Your task to perform on an android device: change the clock display to analog Image 0: 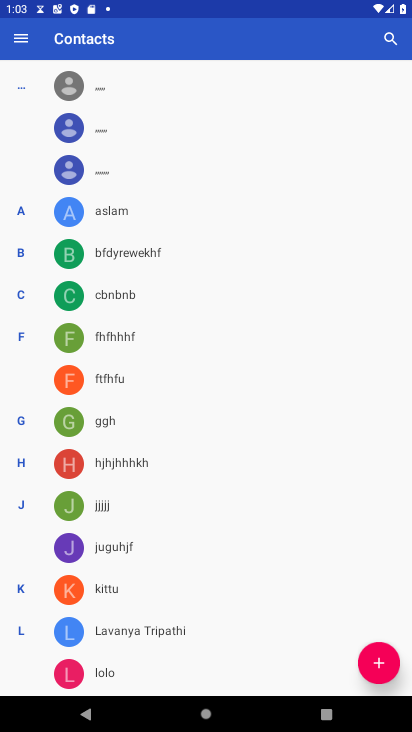
Step 0: press home button
Your task to perform on an android device: change the clock display to analog Image 1: 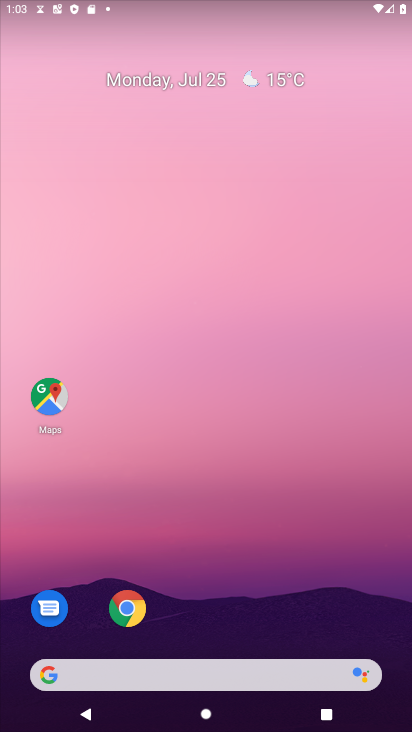
Step 1: drag from (256, 628) to (290, 141)
Your task to perform on an android device: change the clock display to analog Image 2: 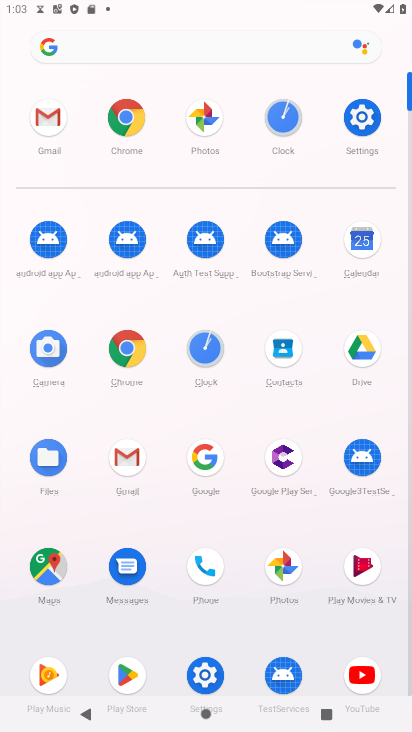
Step 2: click (354, 134)
Your task to perform on an android device: change the clock display to analog Image 3: 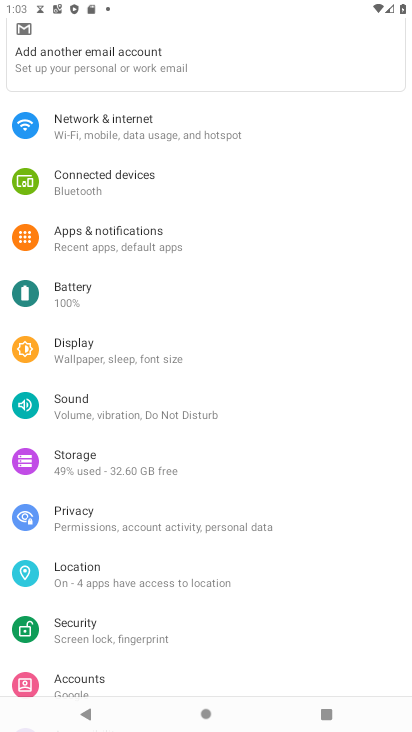
Step 3: press home button
Your task to perform on an android device: change the clock display to analog Image 4: 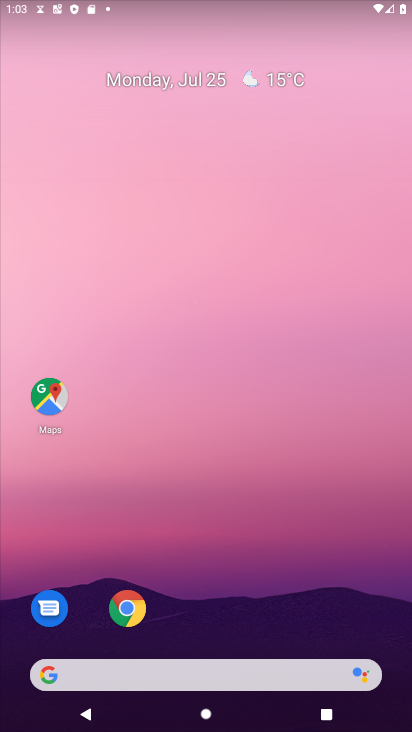
Step 4: click (245, 166)
Your task to perform on an android device: change the clock display to analog Image 5: 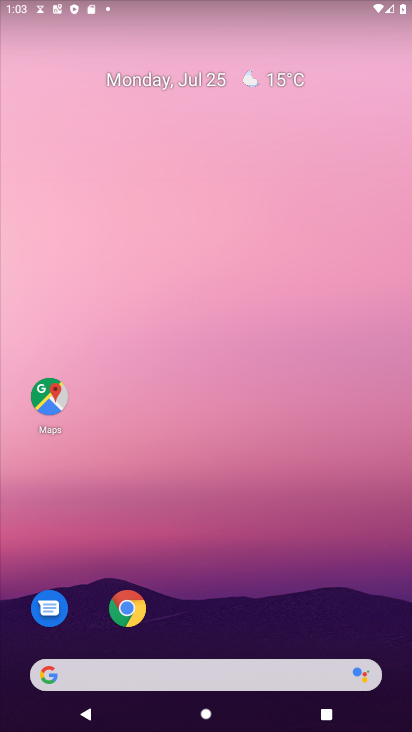
Step 5: drag from (243, 579) to (217, 99)
Your task to perform on an android device: change the clock display to analog Image 6: 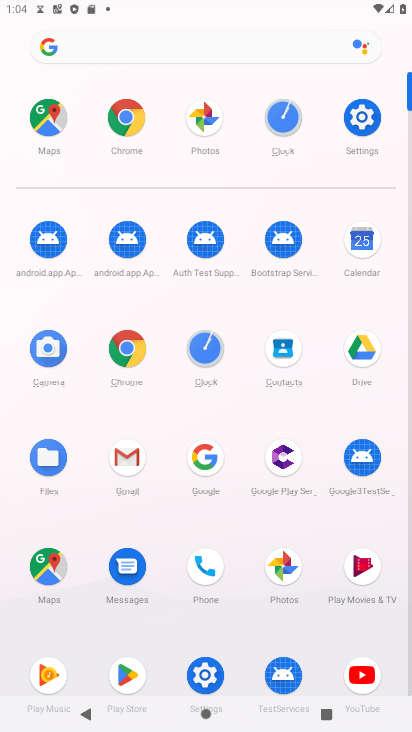
Step 6: click (208, 359)
Your task to perform on an android device: change the clock display to analog Image 7: 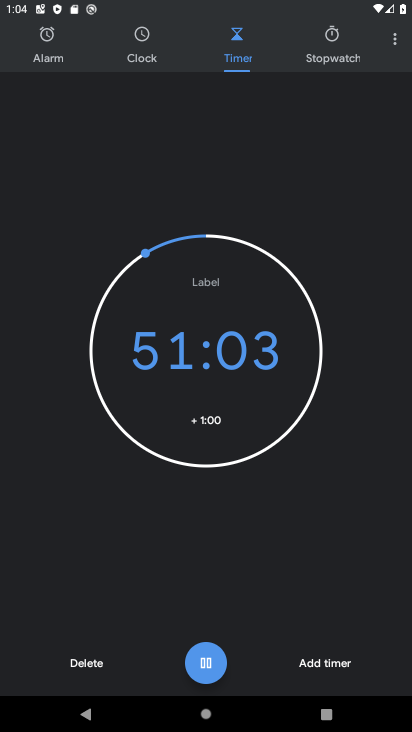
Step 7: click (396, 40)
Your task to perform on an android device: change the clock display to analog Image 8: 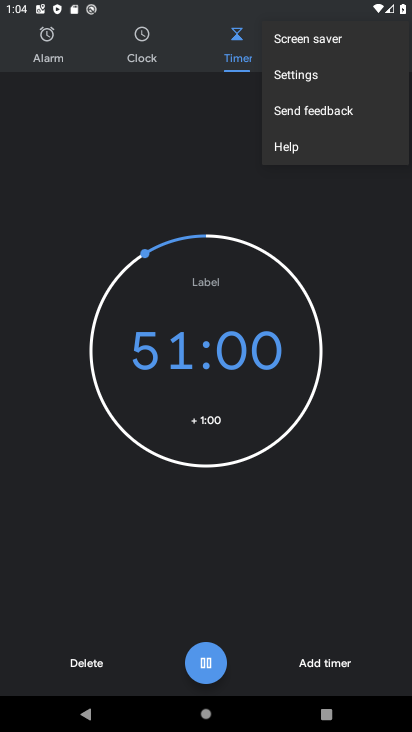
Step 8: click (295, 85)
Your task to perform on an android device: change the clock display to analog Image 9: 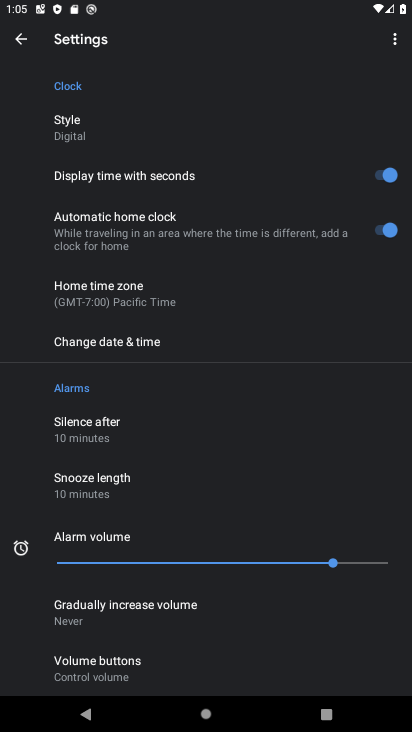
Step 9: click (197, 141)
Your task to perform on an android device: change the clock display to analog Image 10: 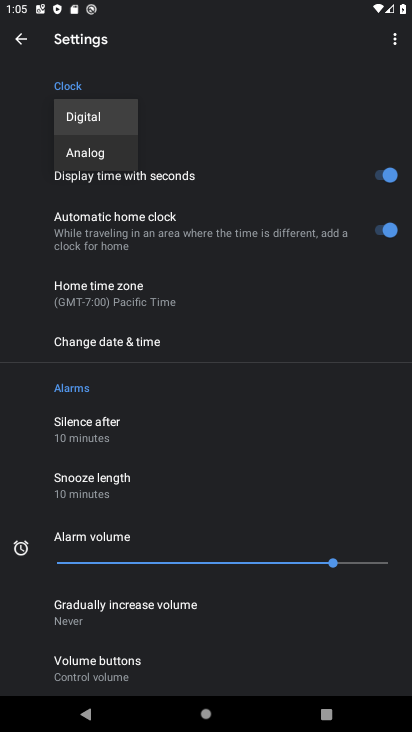
Step 10: click (99, 150)
Your task to perform on an android device: change the clock display to analog Image 11: 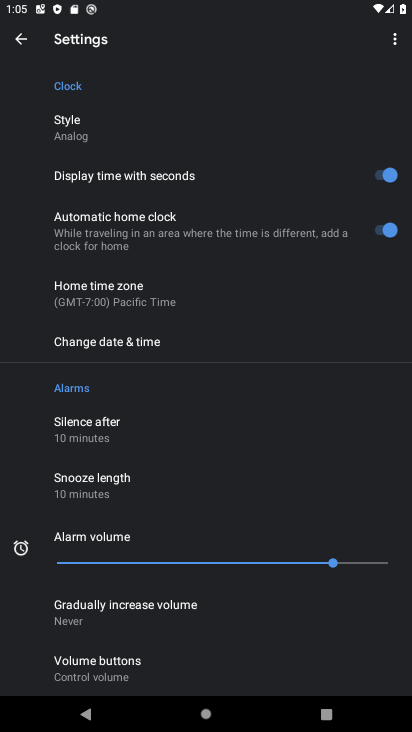
Step 11: task complete